Your task to perform on an android device: turn pop-ups off in chrome Image 0: 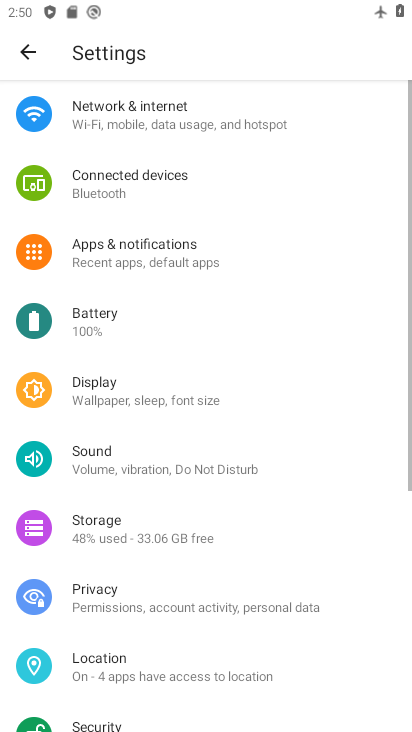
Step 0: press home button
Your task to perform on an android device: turn pop-ups off in chrome Image 1: 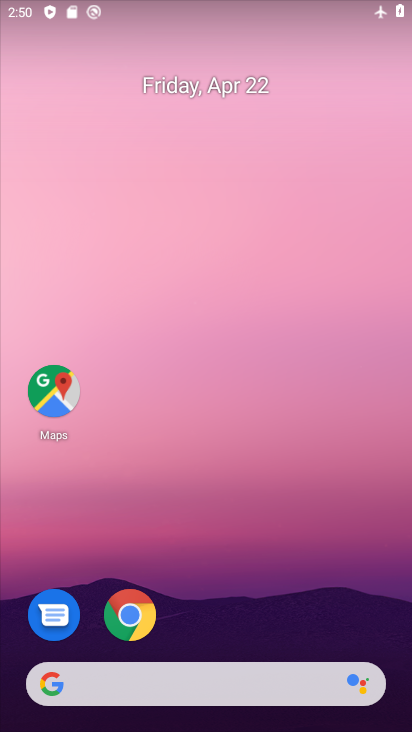
Step 1: click (141, 615)
Your task to perform on an android device: turn pop-ups off in chrome Image 2: 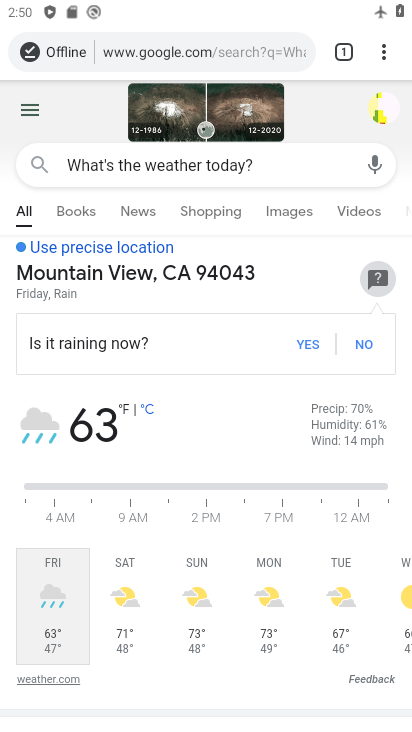
Step 2: drag from (384, 74) to (286, 628)
Your task to perform on an android device: turn pop-ups off in chrome Image 3: 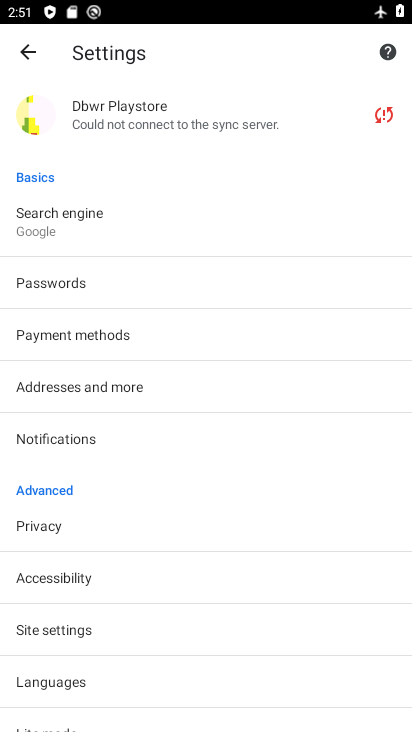
Step 3: drag from (183, 675) to (143, 377)
Your task to perform on an android device: turn pop-ups off in chrome Image 4: 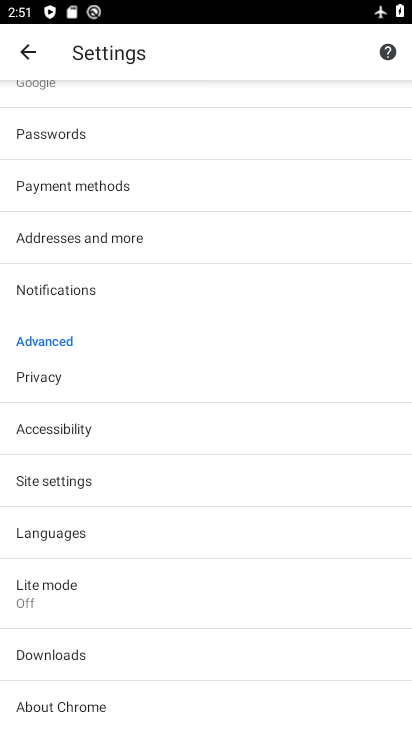
Step 4: click (116, 479)
Your task to perform on an android device: turn pop-ups off in chrome Image 5: 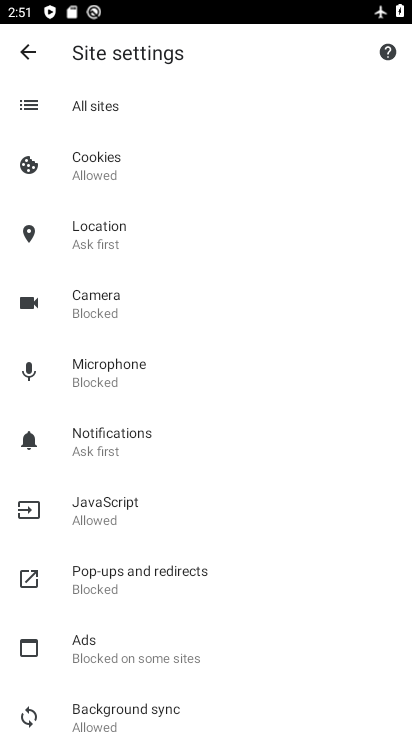
Step 5: click (145, 583)
Your task to perform on an android device: turn pop-ups off in chrome Image 6: 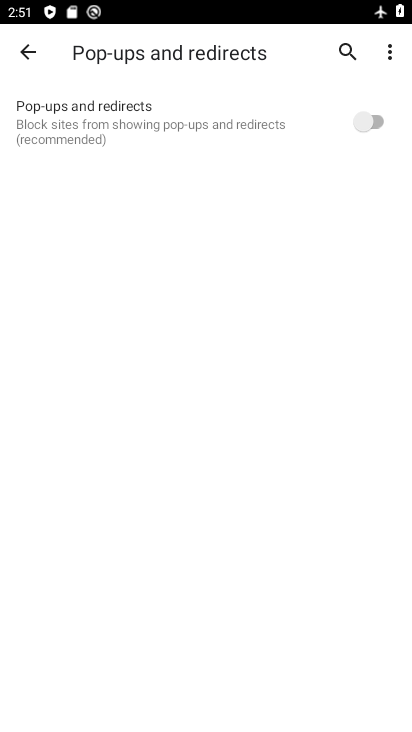
Step 6: task complete